Your task to perform on an android device: turn on wifi Image 0: 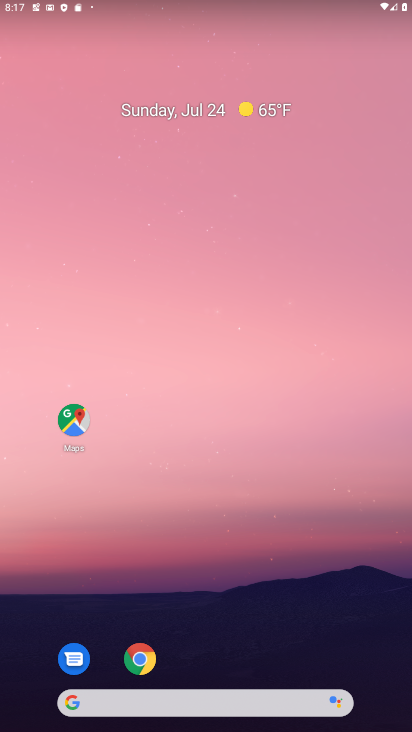
Step 0: drag from (255, 676) to (236, 9)
Your task to perform on an android device: turn on wifi Image 1: 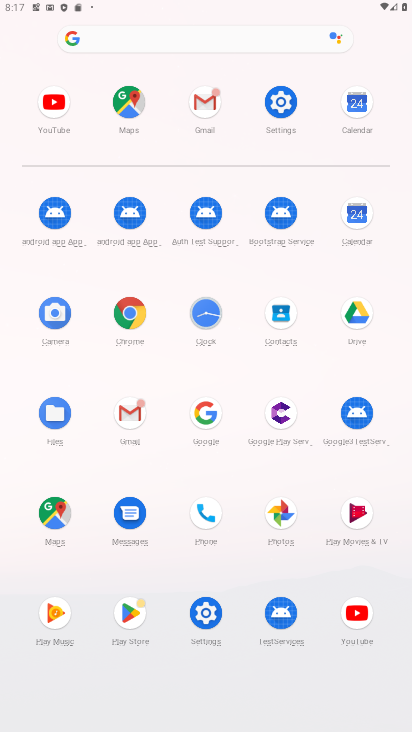
Step 1: click (276, 103)
Your task to perform on an android device: turn on wifi Image 2: 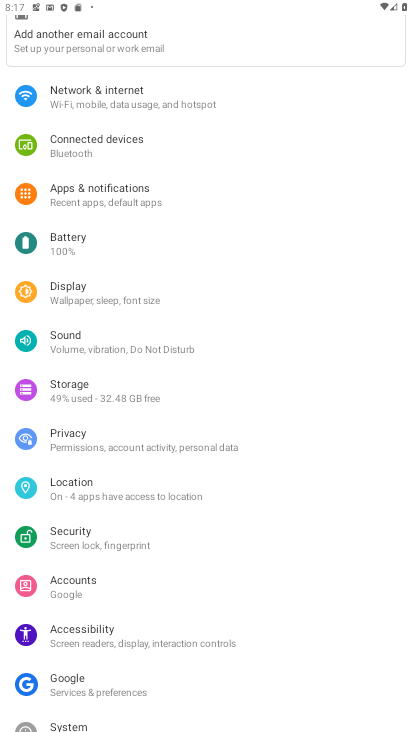
Step 2: click (97, 100)
Your task to perform on an android device: turn on wifi Image 3: 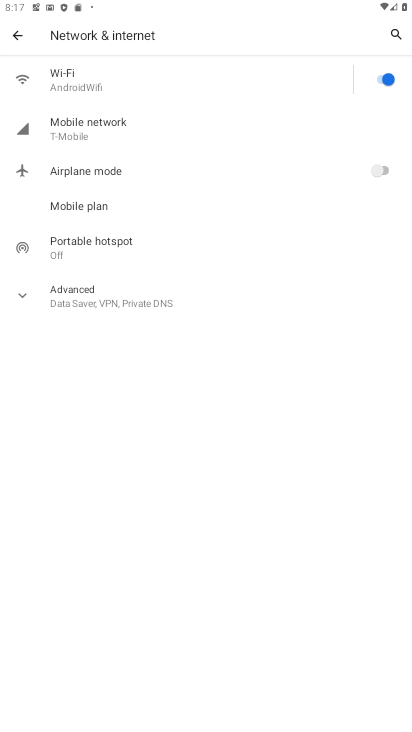
Step 3: task complete